Your task to perform on an android device: open the mobile data screen to see how much data has been used Image 0: 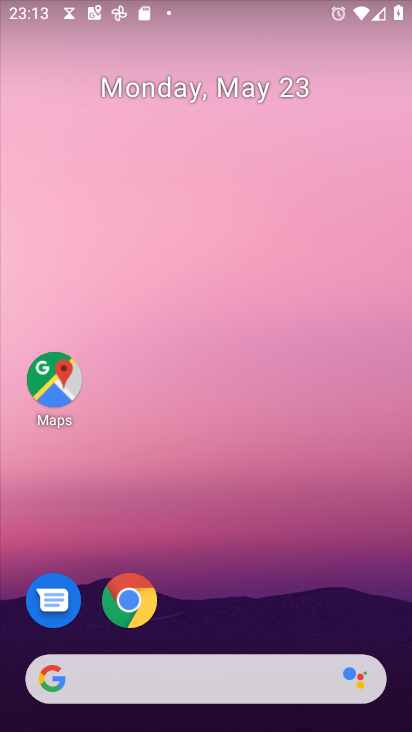
Step 0: drag from (225, 727) to (218, 78)
Your task to perform on an android device: open the mobile data screen to see how much data has been used Image 1: 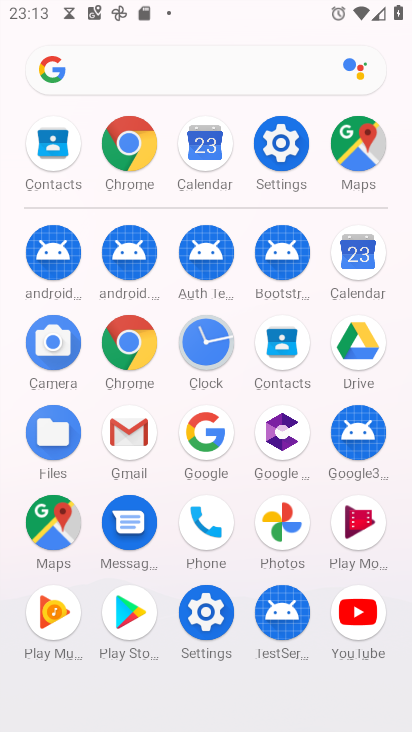
Step 1: click (282, 144)
Your task to perform on an android device: open the mobile data screen to see how much data has been used Image 2: 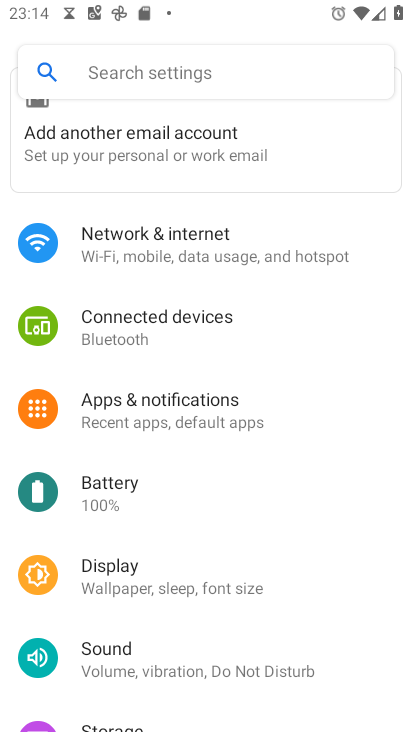
Step 2: drag from (269, 179) to (266, 518)
Your task to perform on an android device: open the mobile data screen to see how much data has been used Image 3: 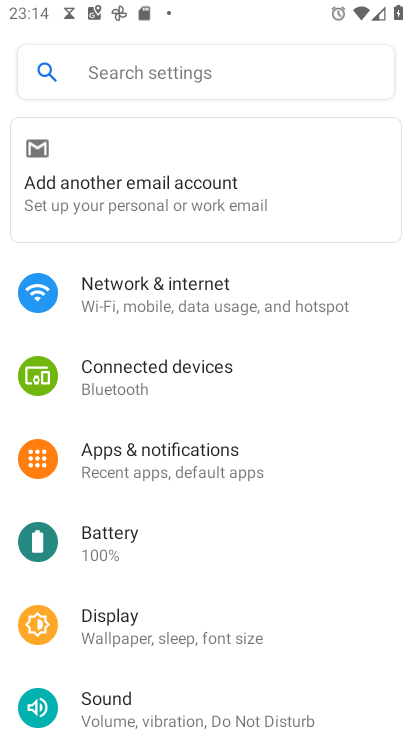
Step 3: click (153, 302)
Your task to perform on an android device: open the mobile data screen to see how much data has been used Image 4: 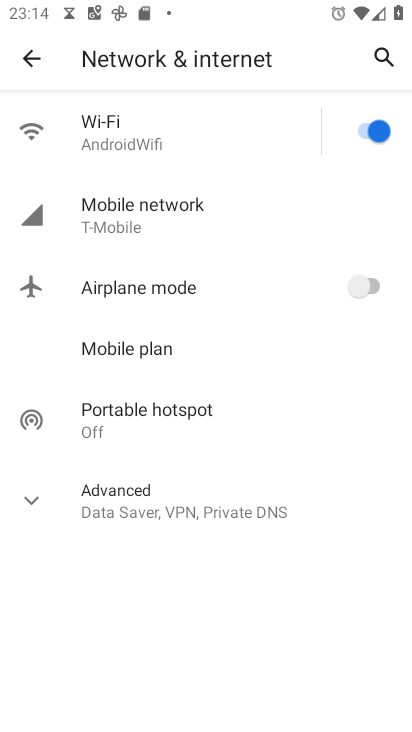
Step 4: click (125, 213)
Your task to perform on an android device: open the mobile data screen to see how much data has been used Image 5: 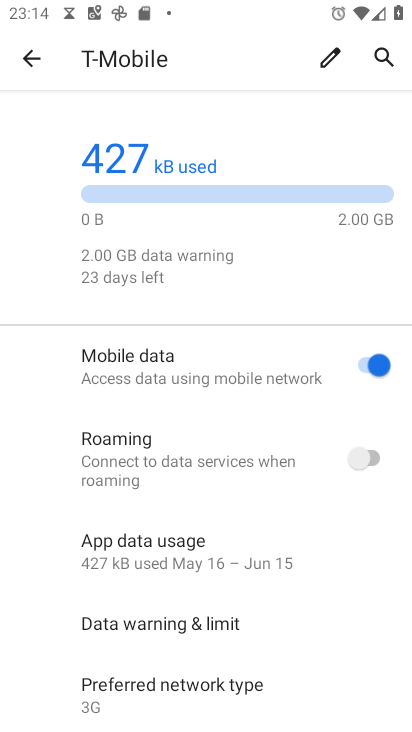
Step 5: click (143, 554)
Your task to perform on an android device: open the mobile data screen to see how much data has been used Image 6: 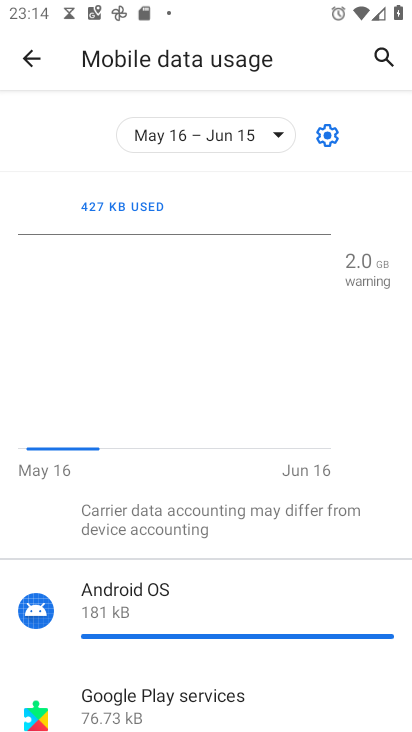
Step 6: task complete